Your task to perform on an android device: turn off location history Image 0: 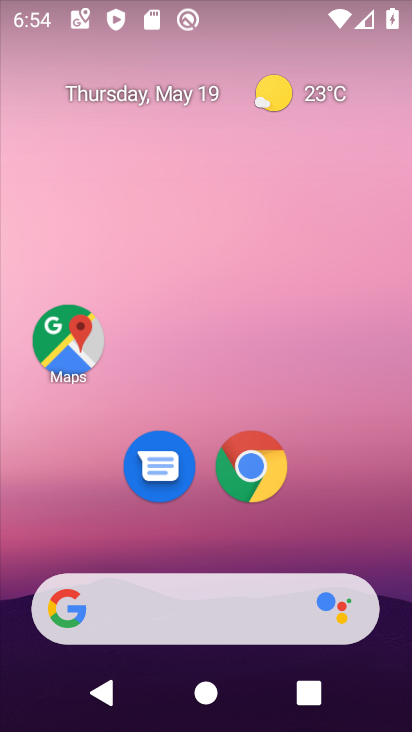
Step 0: drag from (345, 567) to (309, 0)
Your task to perform on an android device: turn off location history Image 1: 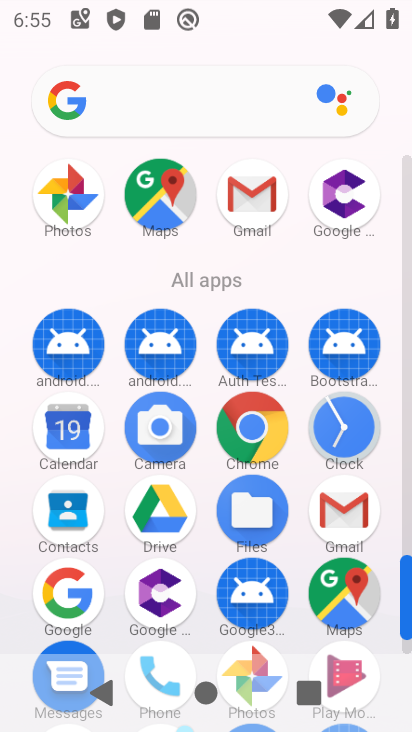
Step 1: drag from (123, 276) to (122, 49)
Your task to perform on an android device: turn off location history Image 2: 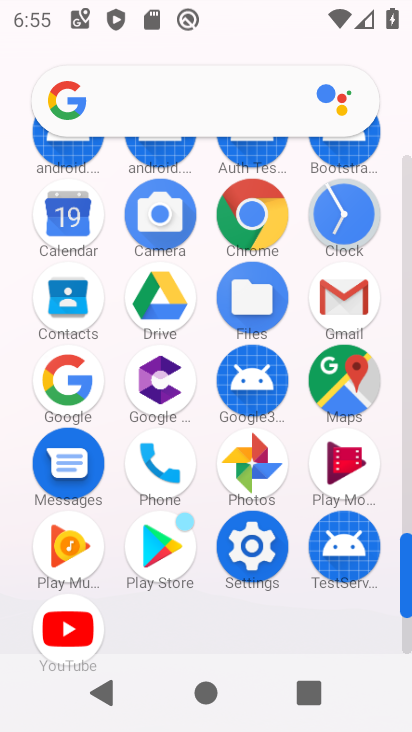
Step 2: click (251, 572)
Your task to perform on an android device: turn off location history Image 3: 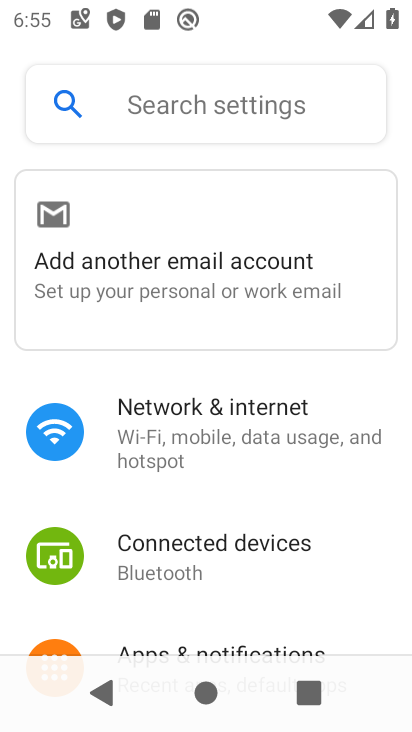
Step 3: drag from (255, 664) to (218, 148)
Your task to perform on an android device: turn off location history Image 4: 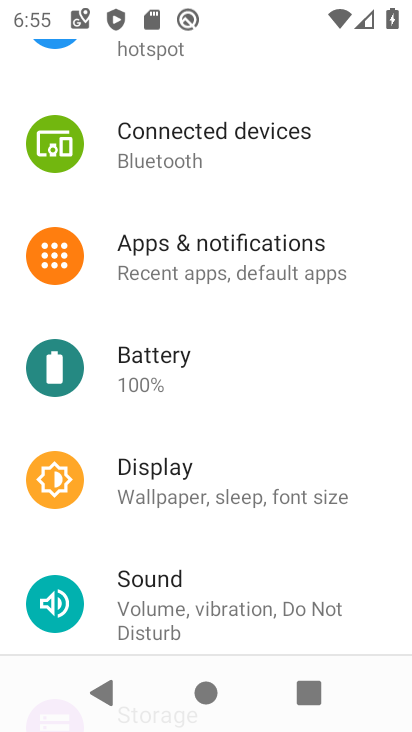
Step 4: drag from (199, 568) to (164, 275)
Your task to perform on an android device: turn off location history Image 5: 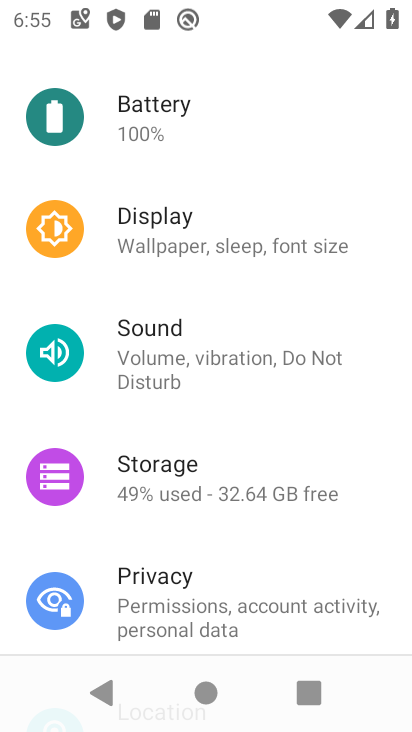
Step 5: drag from (200, 577) to (175, 301)
Your task to perform on an android device: turn off location history Image 6: 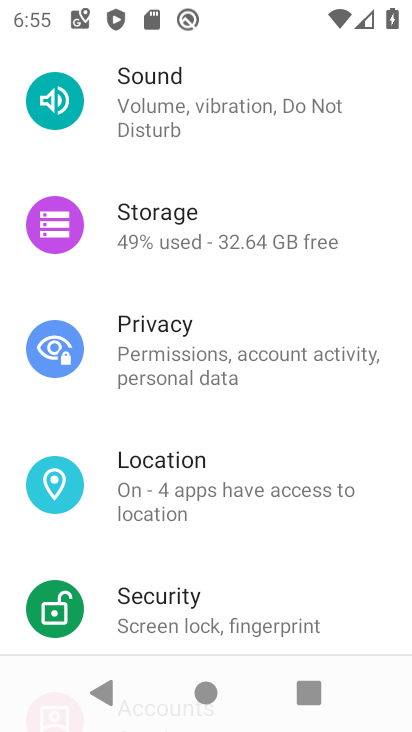
Step 6: click (187, 498)
Your task to perform on an android device: turn off location history Image 7: 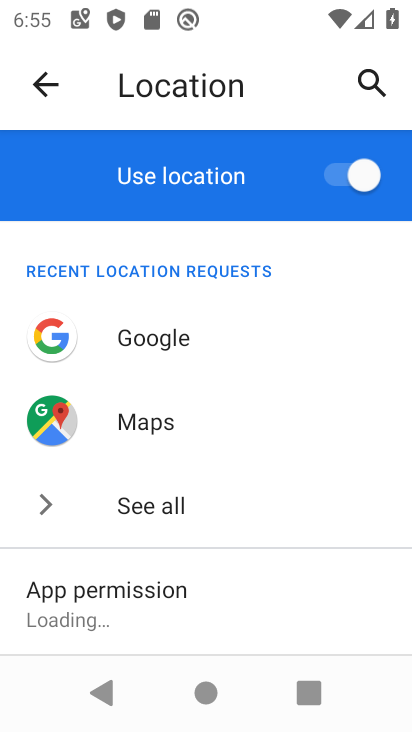
Step 7: drag from (220, 639) to (211, 134)
Your task to perform on an android device: turn off location history Image 8: 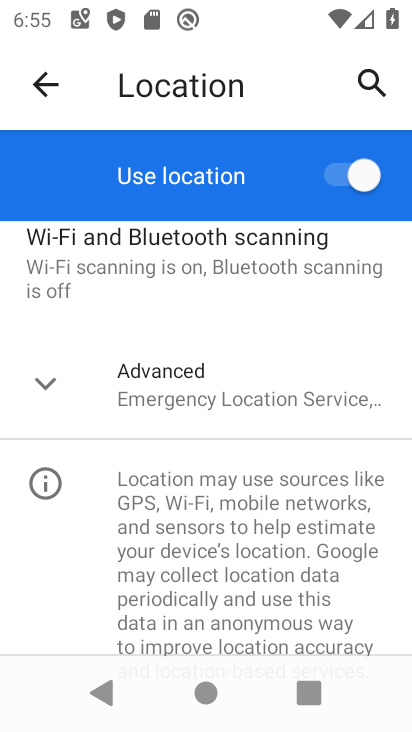
Step 8: click (122, 400)
Your task to perform on an android device: turn off location history Image 9: 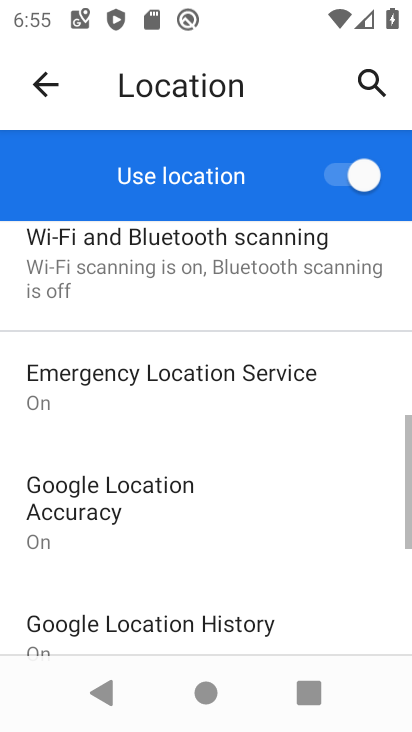
Step 9: click (209, 622)
Your task to perform on an android device: turn off location history Image 10: 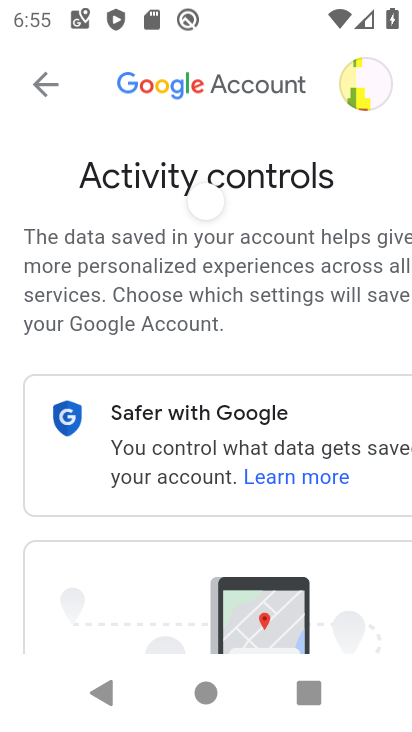
Step 10: drag from (280, 551) to (261, 42)
Your task to perform on an android device: turn off location history Image 11: 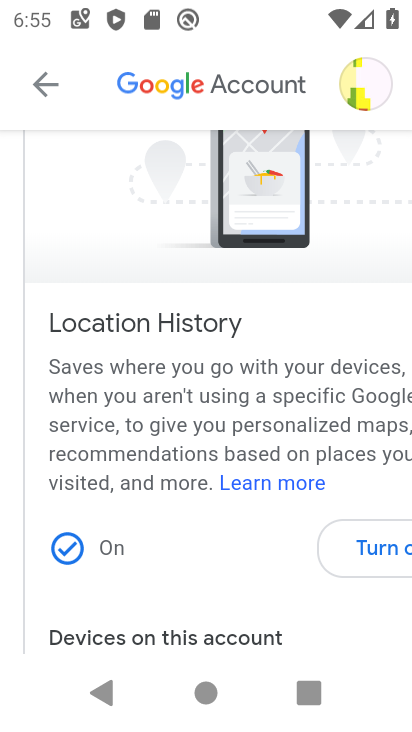
Step 11: click (361, 560)
Your task to perform on an android device: turn off location history Image 12: 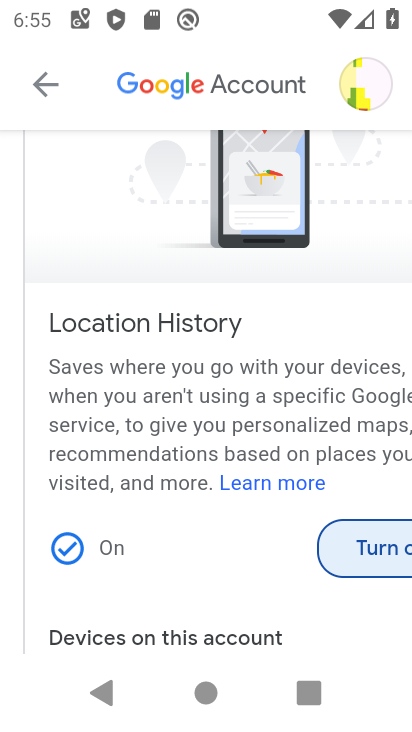
Step 12: click (377, 555)
Your task to perform on an android device: turn off location history Image 13: 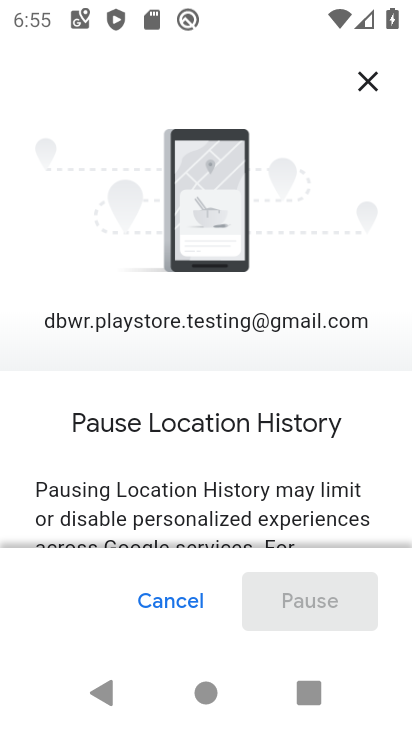
Step 13: drag from (280, 501) to (194, 4)
Your task to perform on an android device: turn off location history Image 14: 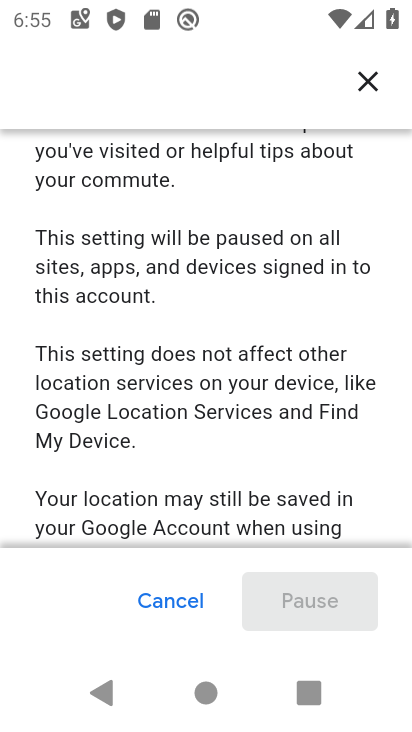
Step 14: drag from (227, 440) to (215, 19)
Your task to perform on an android device: turn off location history Image 15: 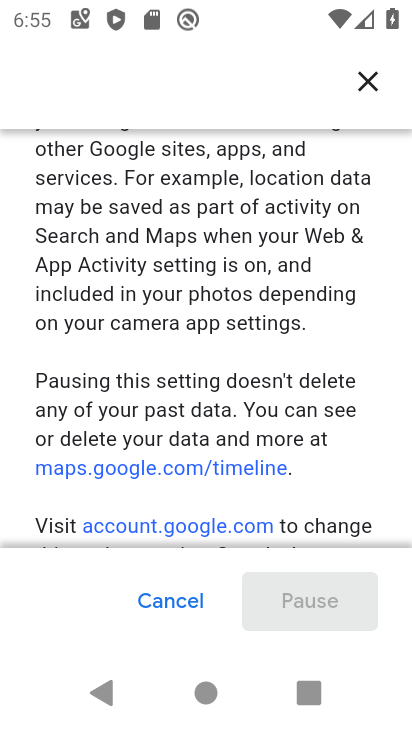
Step 15: drag from (257, 494) to (272, 22)
Your task to perform on an android device: turn off location history Image 16: 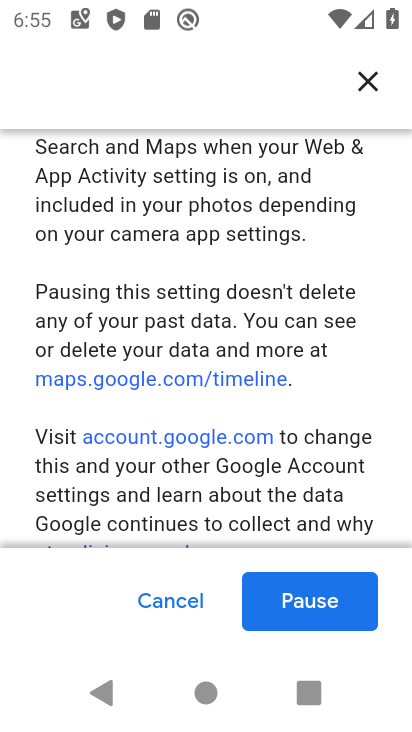
Step 16: click (320, 602)
Your task to perform on an android device: turn off location history Image 17: 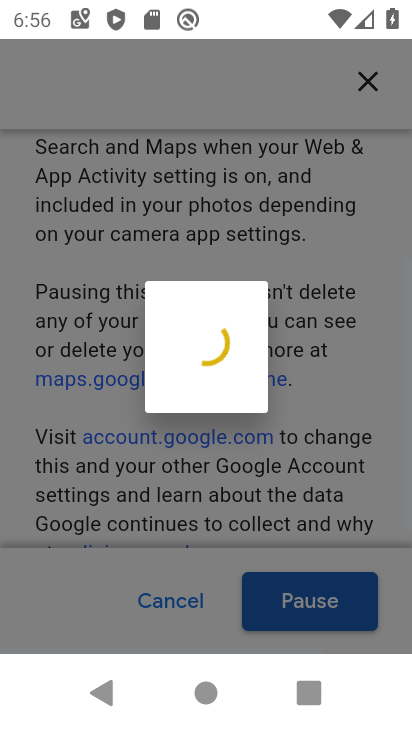
Step 17: click (331, 623)
Your task to perform on an android device: turn off location history Image 18: 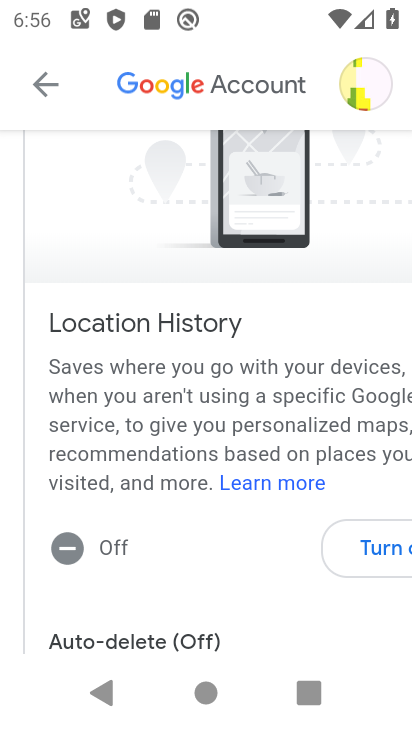
Step 18: task complete